Your task to perform on an android device: check storage Image 0: 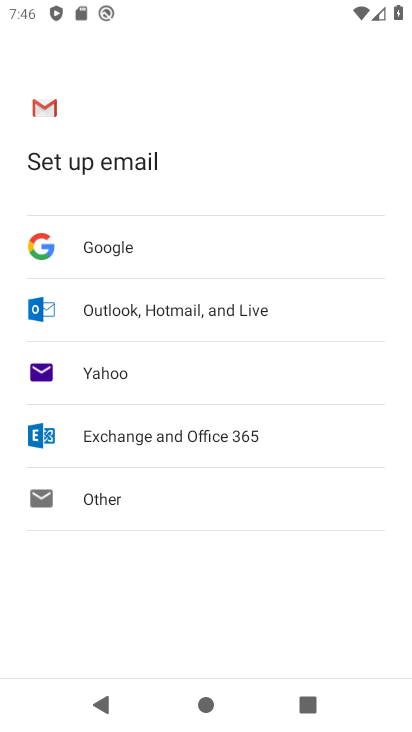
Step 0: press back button
Your task to perform on an android device: check storage Image 1: 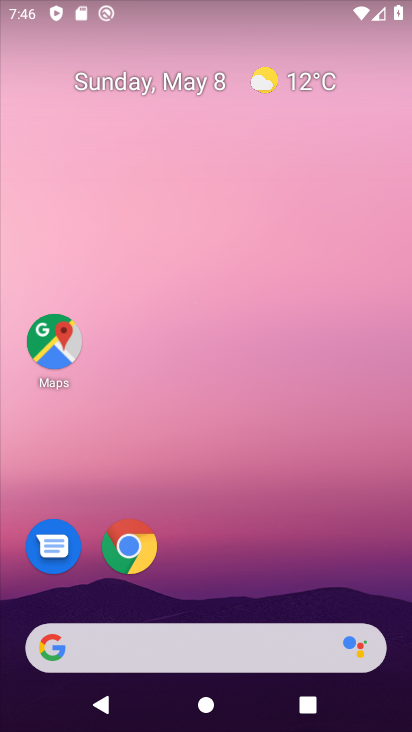
Step 1: drag from (386, 477) to (367, 151)
Your task to perform on an android device: check storage Image 2: 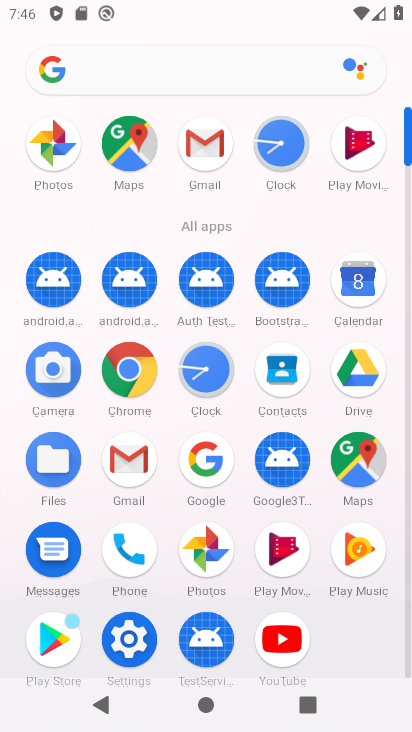
Step 2: click (129, 629)
Your task to perform on an android device: check storage Image 3: 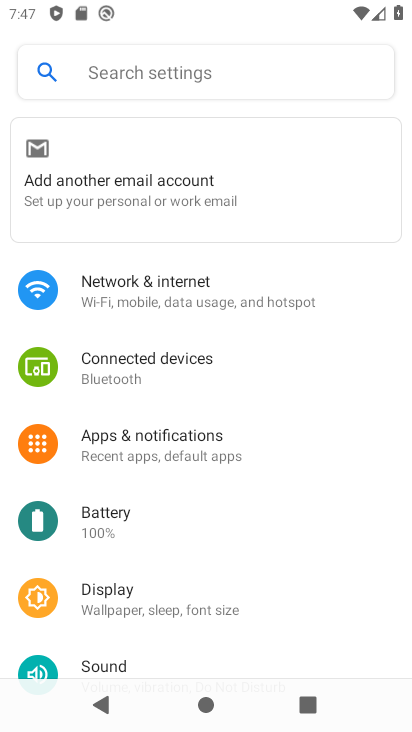
Step 3: drag from (378, 593) to (410, 208)
Your task to perform on an android device: check storage Image 4: 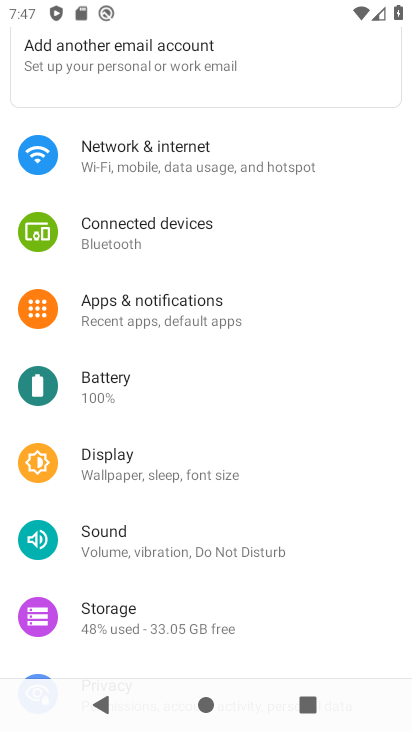
Step 4: click (125, 612)
Your task to perform on an android device: check storage Image 5: 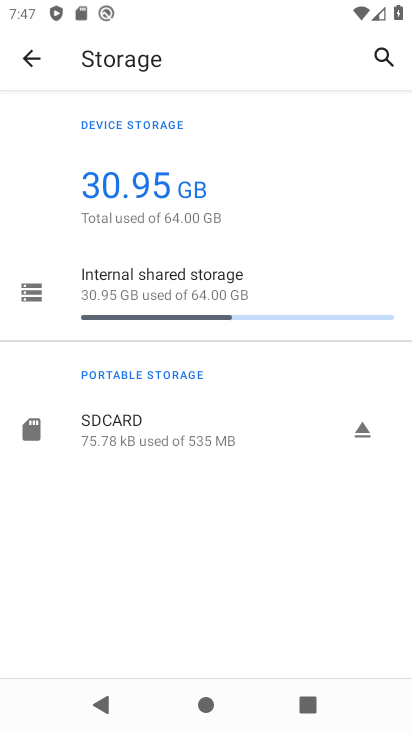
Step 5: task complete